Your task to perform on an android device: Open Android settings Image 0: 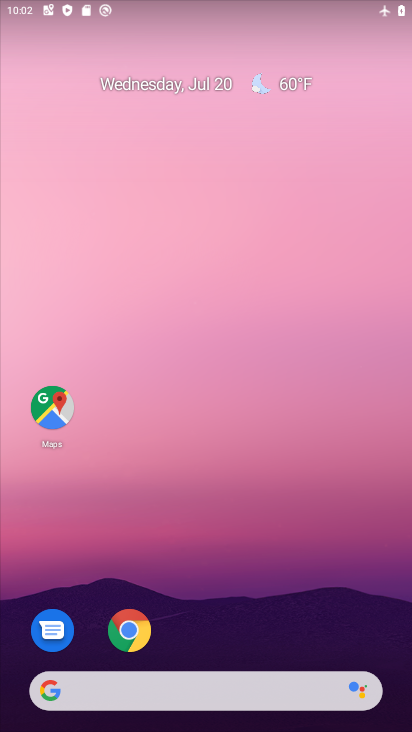
Step 0: drag from (223, 685) to (261, 324)
Your task to perform on an android device: Open Android settings Image 1: 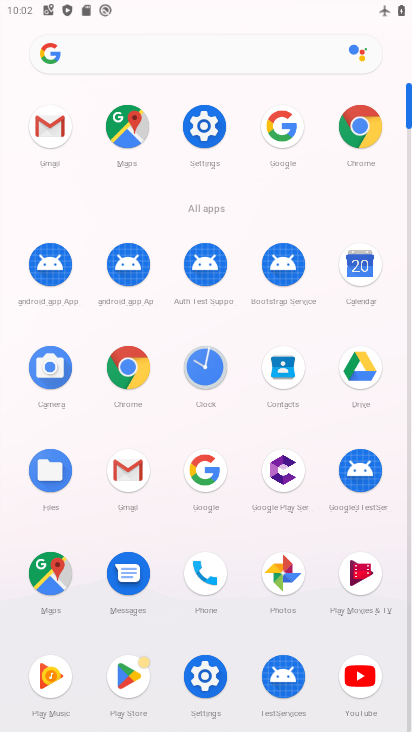
Step 1: click (205, 118)
Your task to perform on an android device: Open Android settings Image 2: 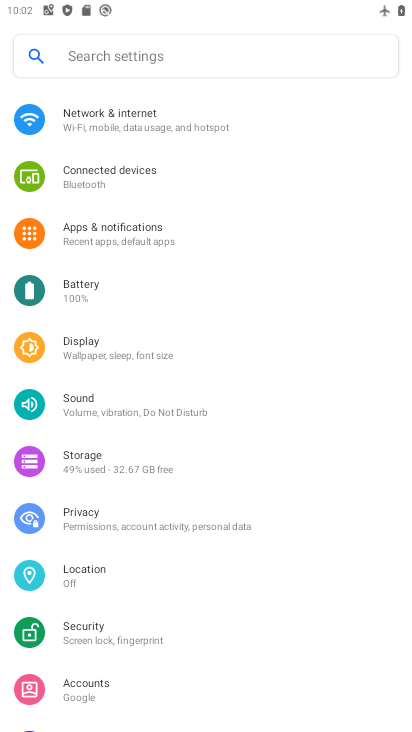
Step 2: task complete